Your task to perform on an android device: create a new album in the google photos Image 0: 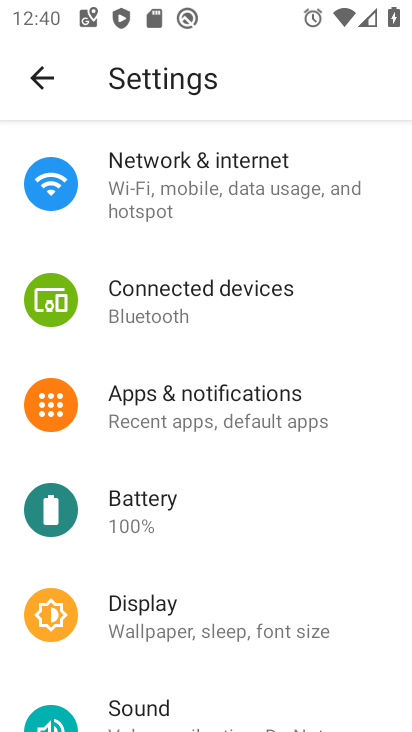
Step 0: press home button
Your task to perform on an android device: create a new album in the google photos Image 1: 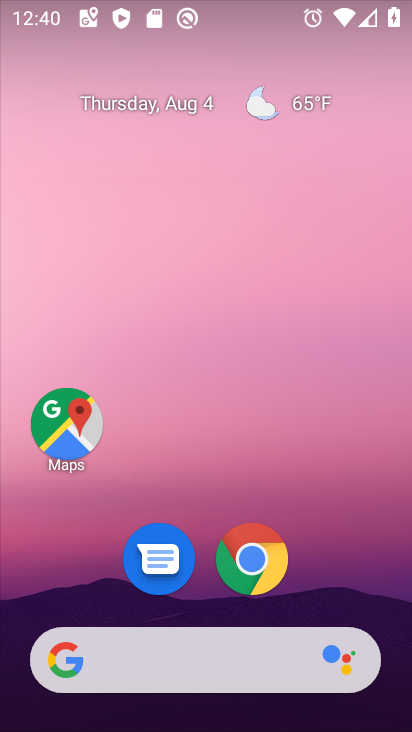
Step 1: drag from (195, 679) to (300, 38)
Your task to perform on an android device: create a new album in the google photos Image 2: 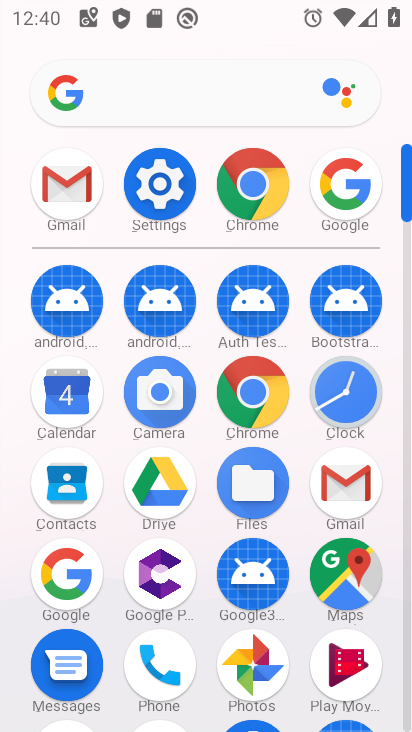
Step 2: click (253, 662)
Your task to perform on an android device: create a new album in the google photos Image 3: 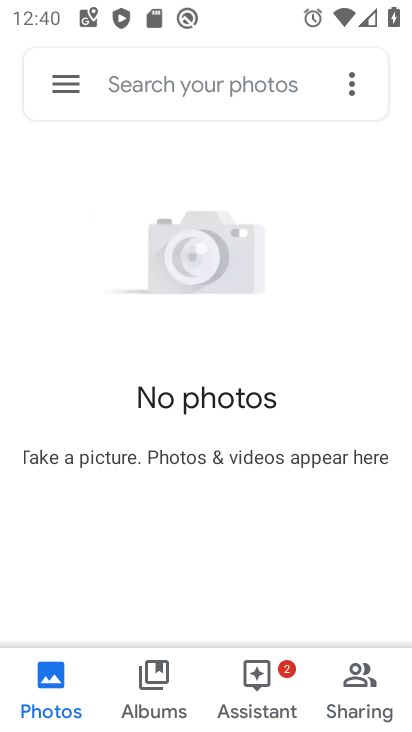
Step 3: click (153, 669)
Your task to perform on an android device: create a new album in the google photos Image 4: 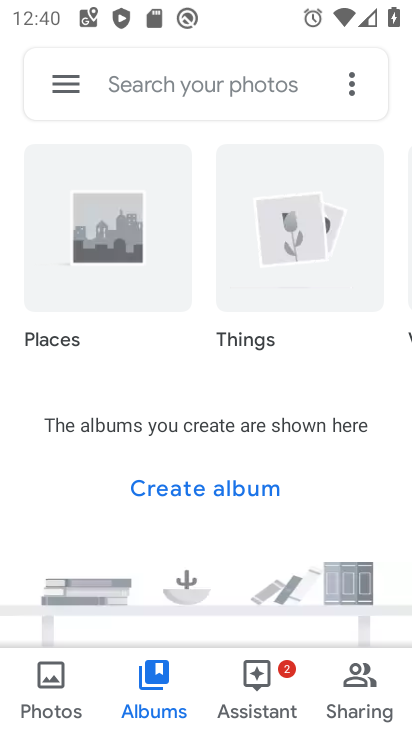
Step 4: click (225, 489)
Your task to perform on an android device: create a new album in the google photos Image 5: 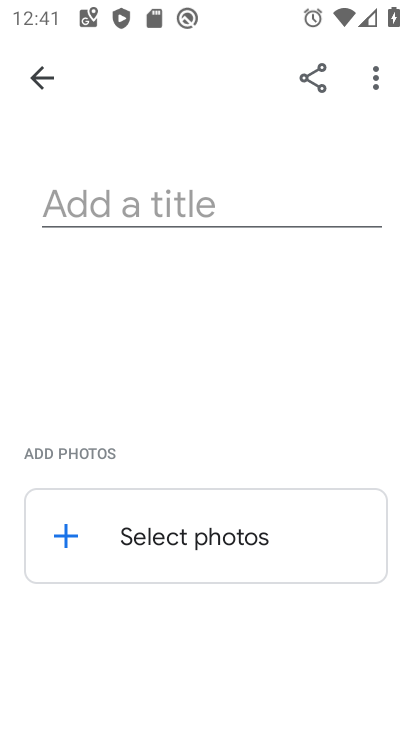
Step 5: click (251, 201)
Your task to perform on an android device: create a new album in the google photos Image 6: 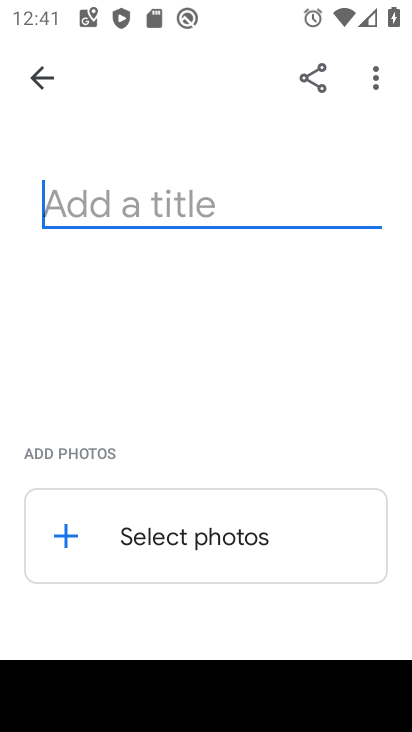
Step 6: type "meme"
Your task to perform on an android device: create a new album in the google photos Image 7: 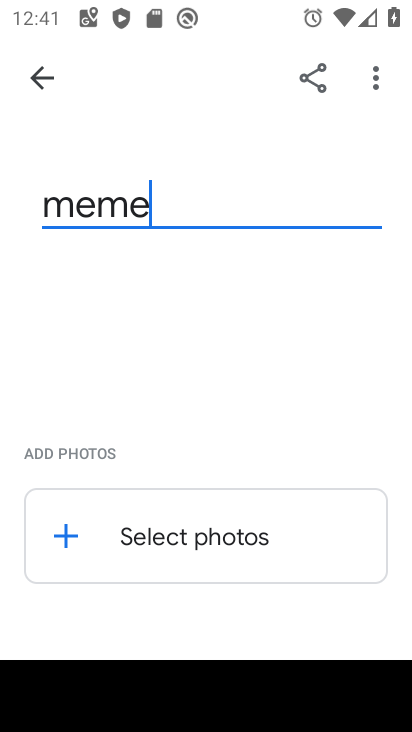
Step 7: type ""
Your task to perform on an android device: create a new album in the google photos Image 8: 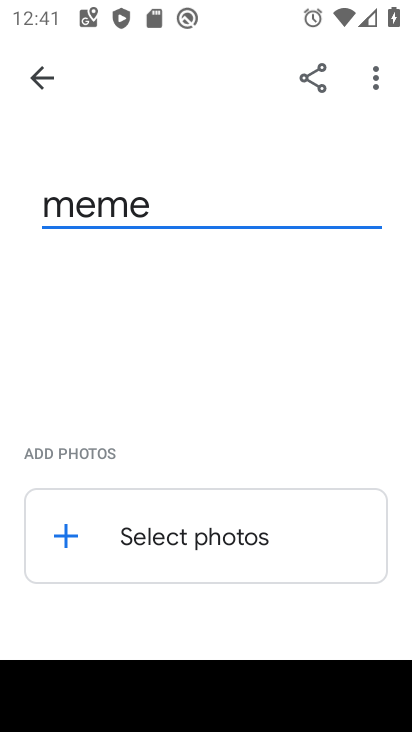
Step 8: click (67, 532)
Your task to perform on an android device: create a new album in the google photos Image 9: 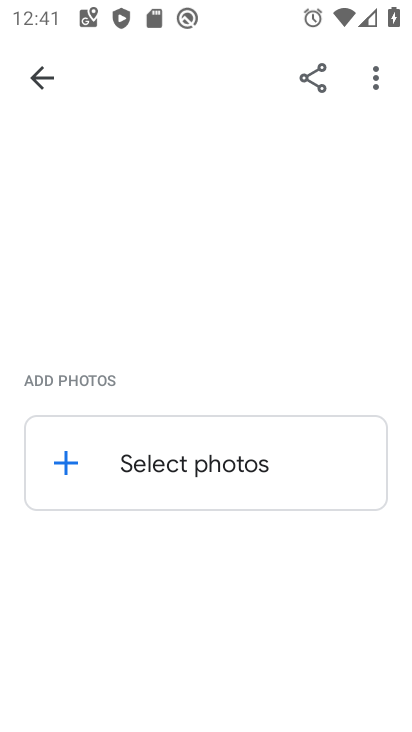
Step 9: click (67, 465)
Your task to perform on an android device: create a new album in the google photos Image 10: 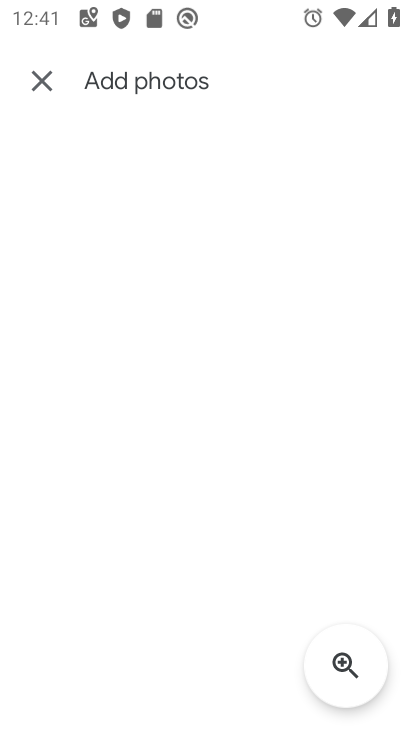
Step 10: click (341, 661)
Your task to perform on an android device: create a new album in the google photos Image 11: 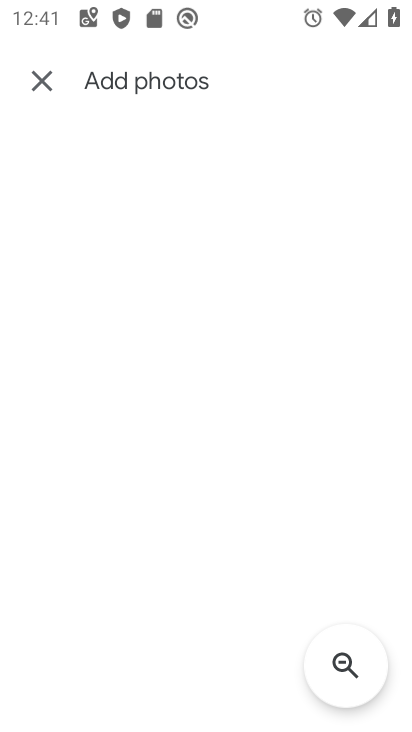
Step 11: click (341, 661)
Your task to perform on an android device: create a new album in the google photos Image 12: 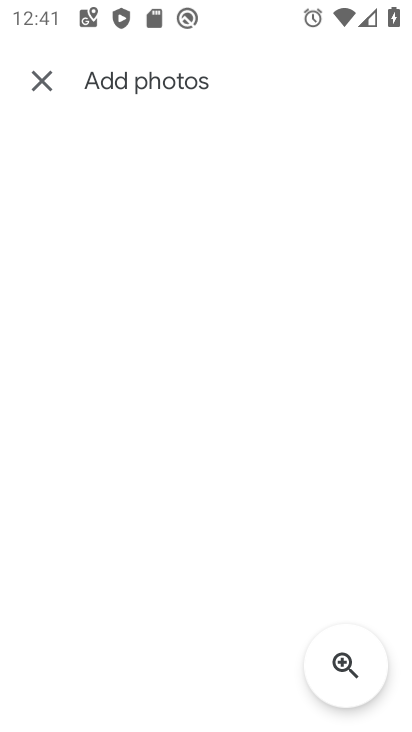
Step 12: task complete